Your task to perform on an android device: Is it going to rain today? Image 0: 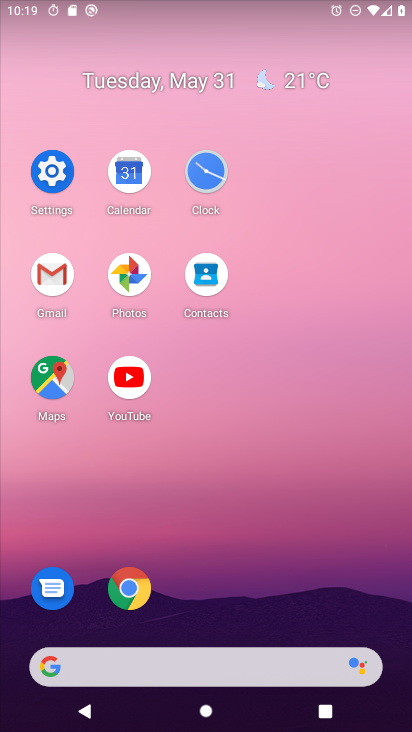
Step 0: drag from (257, 603) to (254, 156)
Your task to perform on an android device: Is it going to rain today? Image 1: 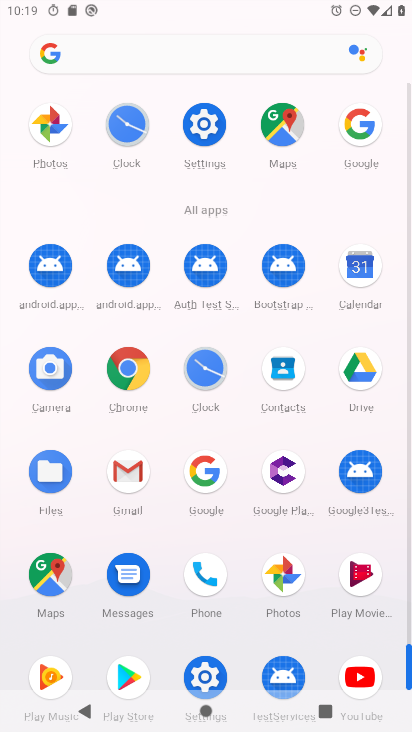
Step 1: drag from (359, 132) to (199, 325)
Your task to perform on an android device: Is it going to rain today? Image 2: 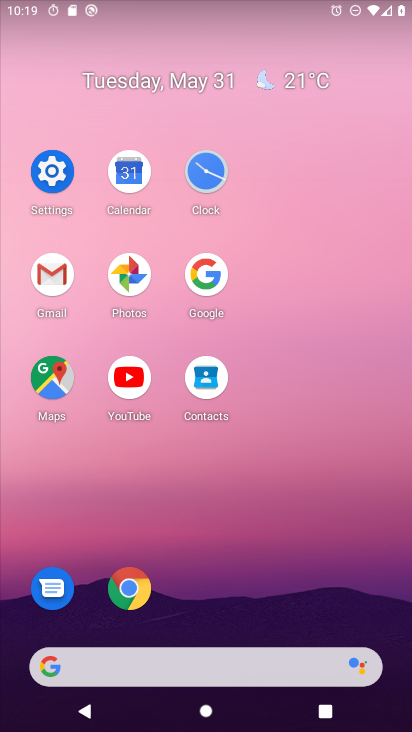
Step 2: drag from (362, 121) to (357, 162)
Your task to perform on an android device: Is it going to rain today? Image 3: 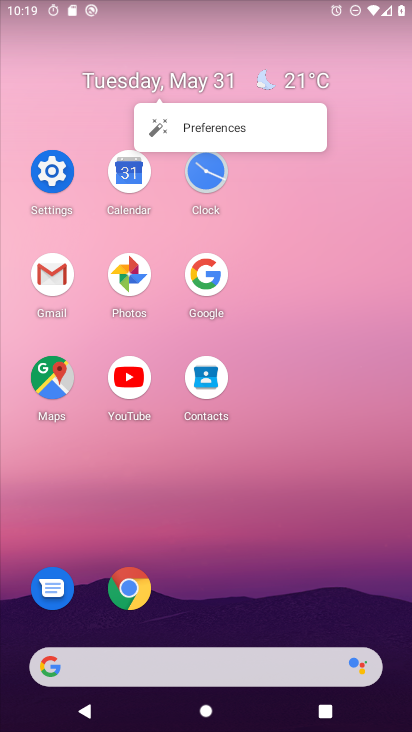
Step 3: click (189, 263)
Your task to perform on an android device: Is it going to rain today? Image 4: 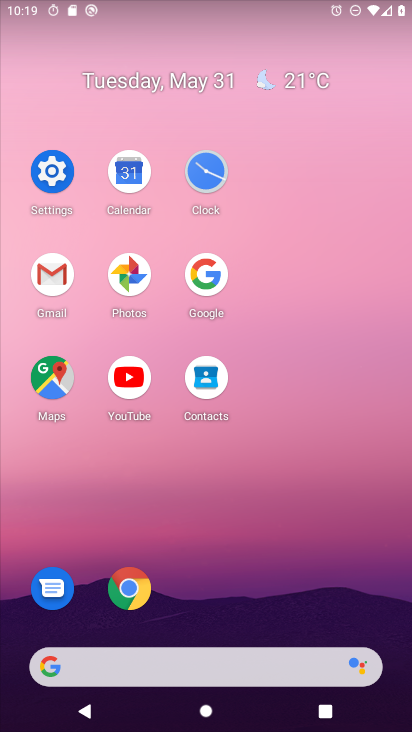
Step 4: click (215, 280)
Your task to perform on an android device: Is it going to rain today? Image 5: 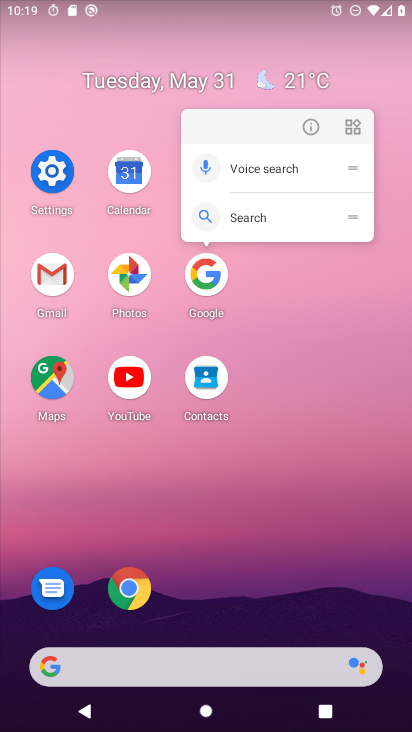
Step 5: click (203, 279)
Your task to perform on an android device: Is it going to rain today? Image 6: 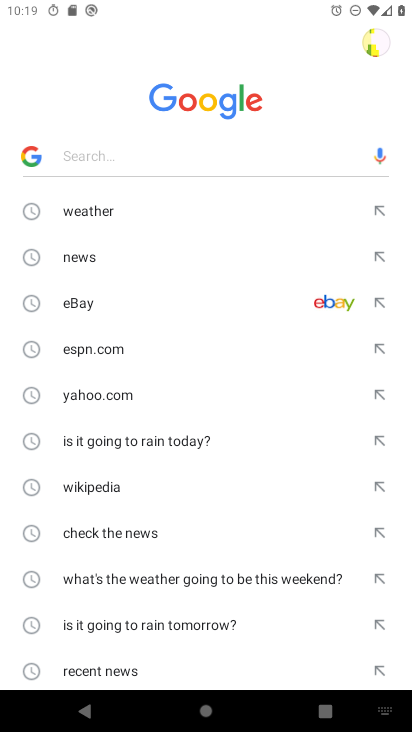
Step 6: click (123, 212)
Your task to perform on an android device: Is it going to rain today? Image 7: 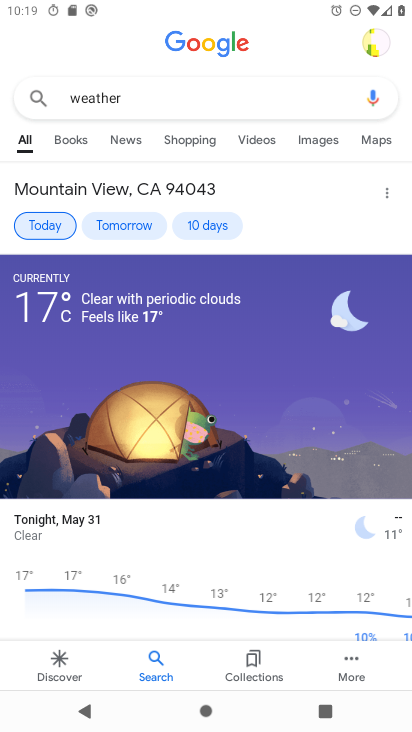
Step 7: task complete